Your task to perform on an android device: make emails show in primary in the gmail app Image 0: 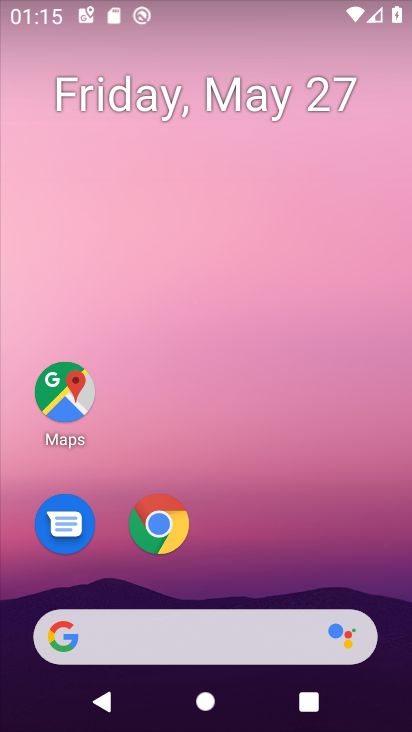
Step 0: drag from (257, 536) to (237, 6)
Your task to perform on an android device: make emails show in primary in the gmail app Image 1: 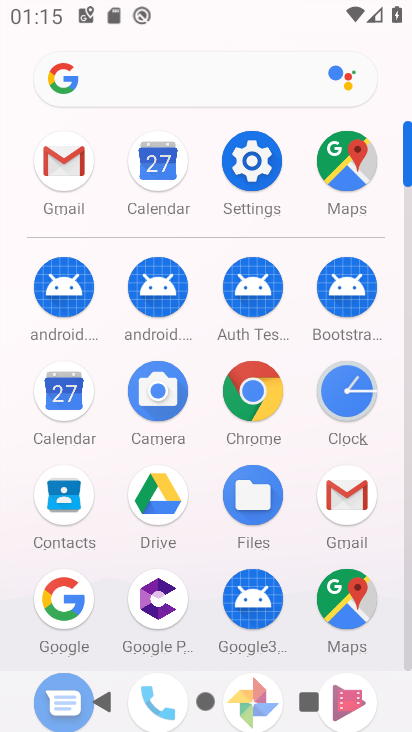
Step 1: click (52, 152)
Your task to perform on an android device: make emails show in primary in the gmail app Image 2: 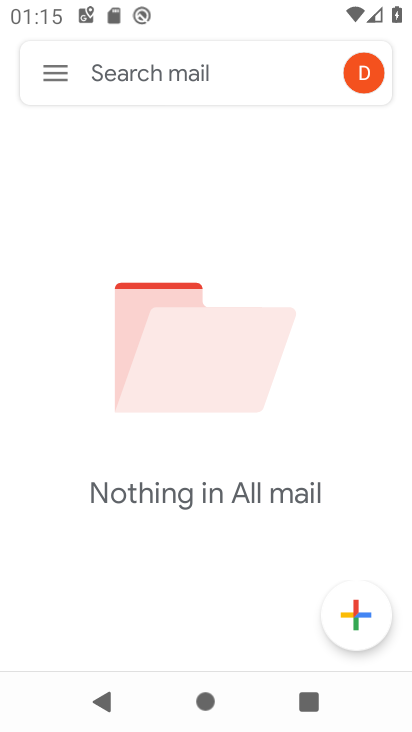
Step 2: click (51, 64)
Your task to perform on an android device: make emails show in primary in the gmail app Image 3: 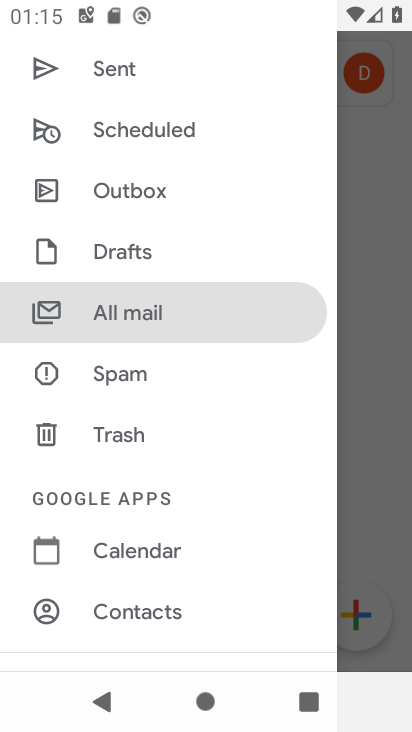
Step 3: drag from (171, 500) to (183, 263)
Your task to perform on an android device: make emails show in primary in the gmail app Image 4: 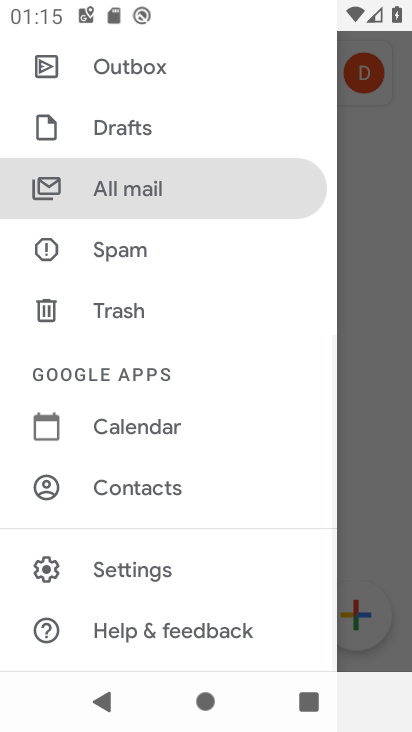
Step 4: click (136, 567)
Your task to perform on an android device: make emails show in primary in the gmail app Image 5: 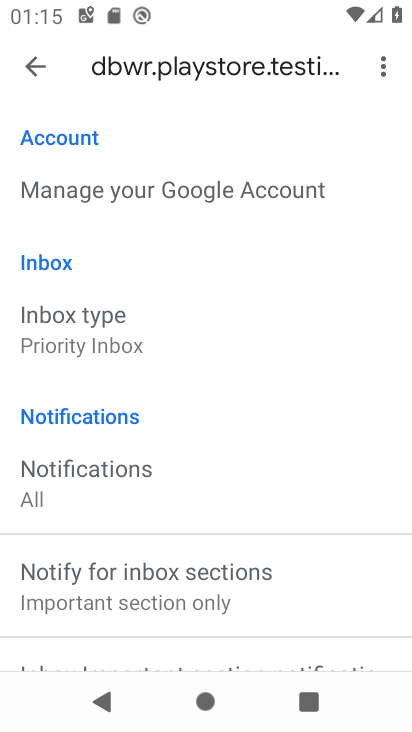
Step 5: click (107, 324)
Your task to perform on an android device: make emails show in primary in the gmail app Image 6: 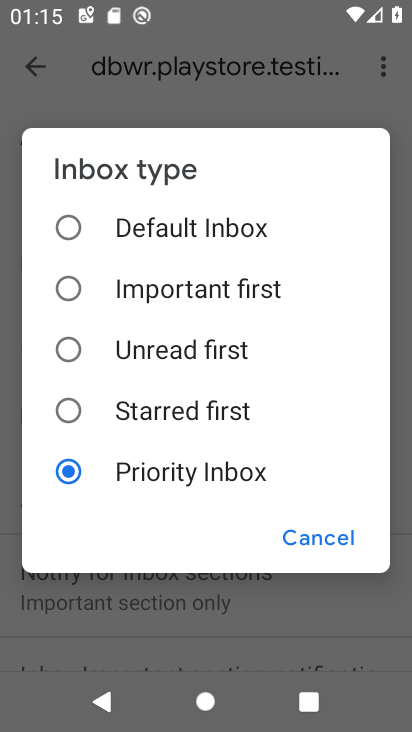
Step 6: click (69, 216)
Your task to perform on an android device: make emails show in primary in the gmail app Image 7: 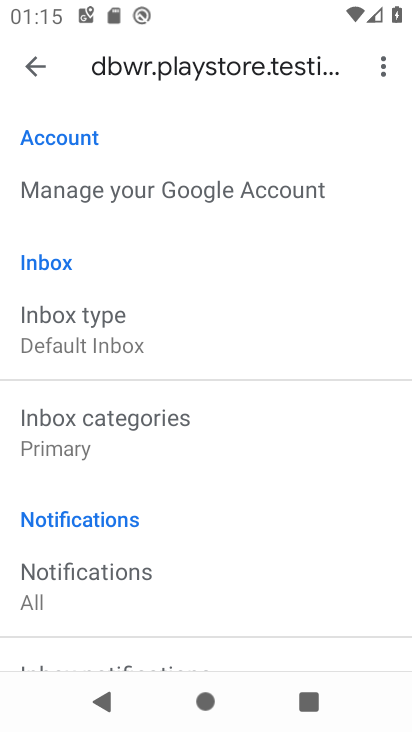
Step 7: click (103, 428)
Your task to perform on an android device: make emails show in primary in the gmail app Image 8: 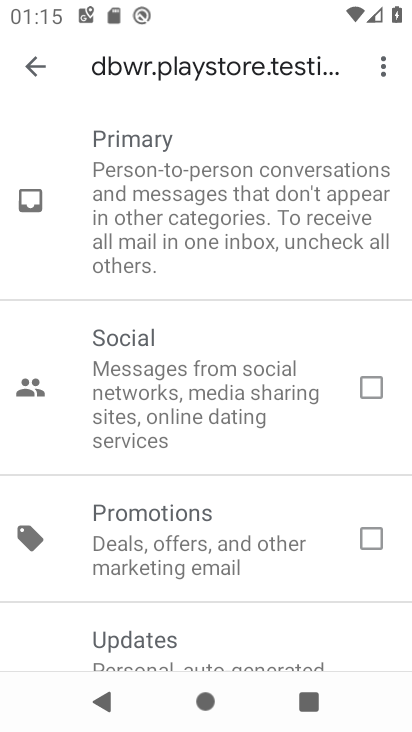
Step 8: click (30, 57)
Your task to perform on an android device: make emails show in primary in the gmail app Image 9: 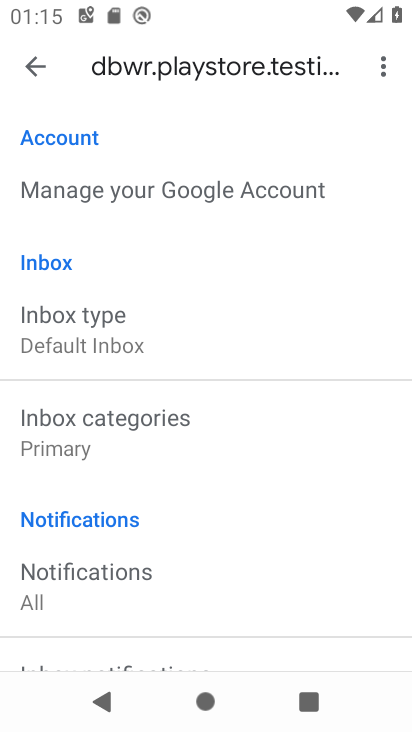
Step 9: task complete